Your task to perform on an android device: turn notification dots off Image 0: 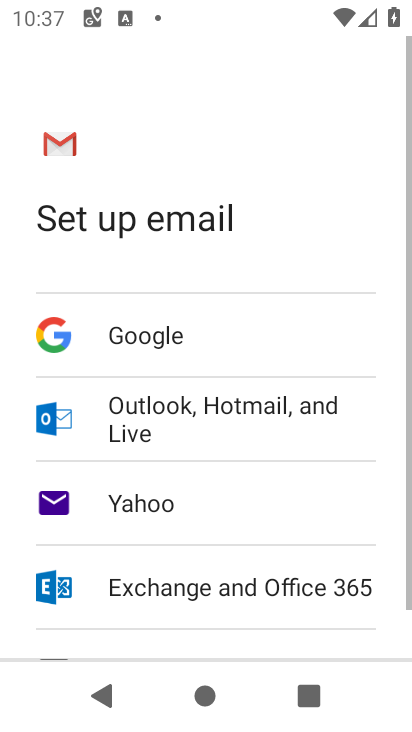
Step 0: press home button
Your task to perform on an android device: turn notification dots off Image 1: 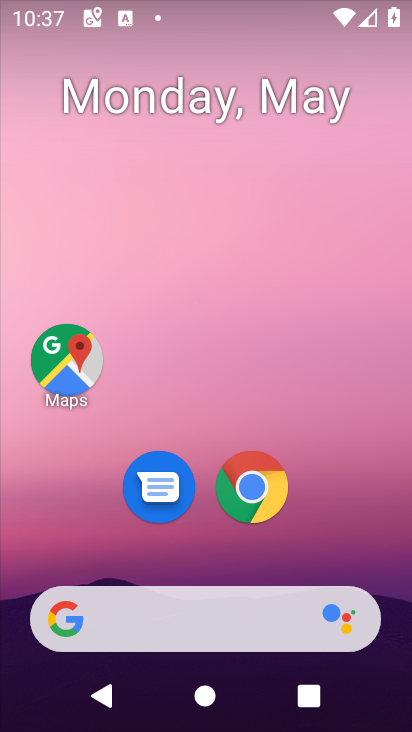
Step 1: drag from (233, 555) to (310, 22)
Your task to perform on an android device: turn notification dots off Image 2: 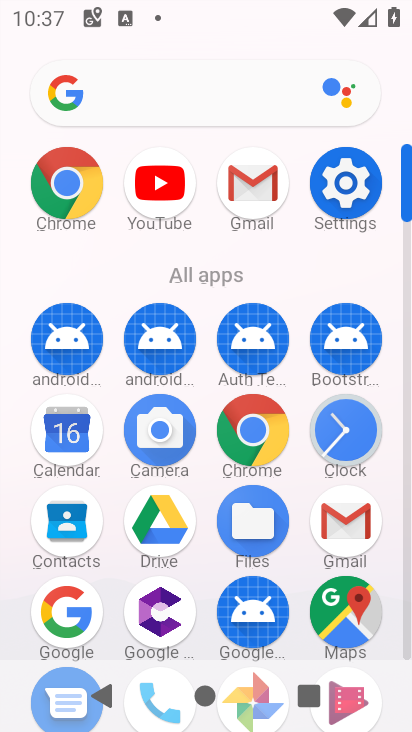
Step 2: click (332, 175)
Your task to perform on an android device: turn notification dots off Image 3: 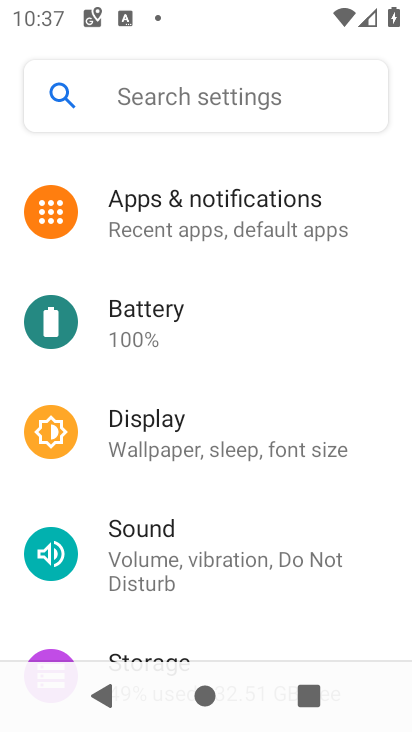
Step 3: click (269, 220)
Your task to perform on an android device: turn notification dots off Image 4: 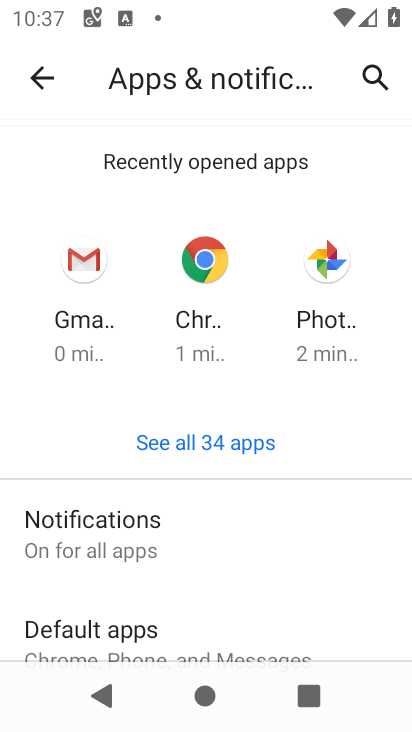
Step 4: click (127, 559)
Your task to perform on an android device: turn notification dots off Image 5: 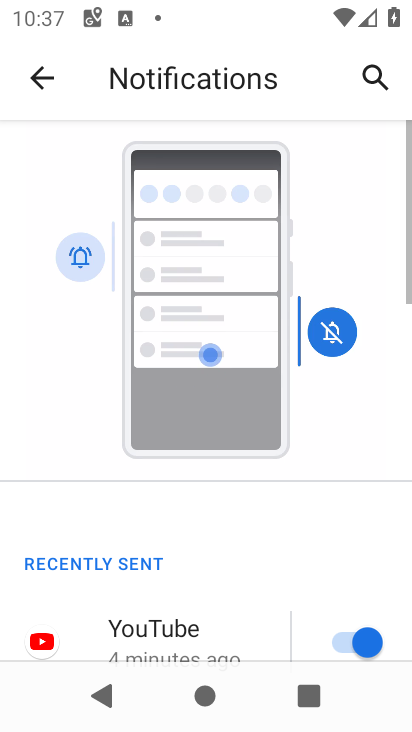
Step 5: drag from (204, 540) to (287, 77)
Your task to perform on an android device: turn notification dots off Image 6: 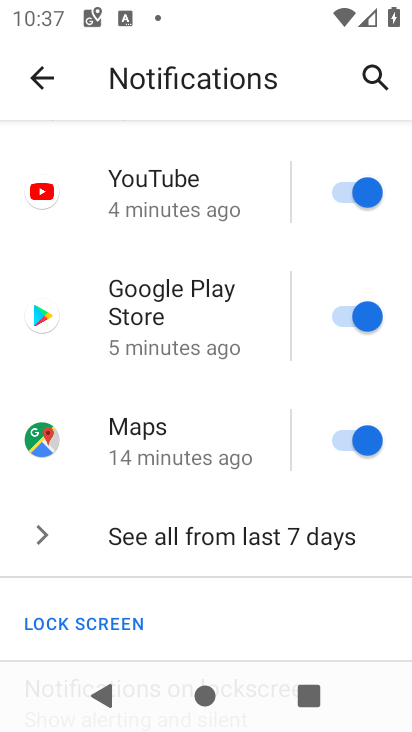
Step 6: drag from (196, 491) to (224, 122)
Your task to perform on an android device: turn notification dots off Image 7: 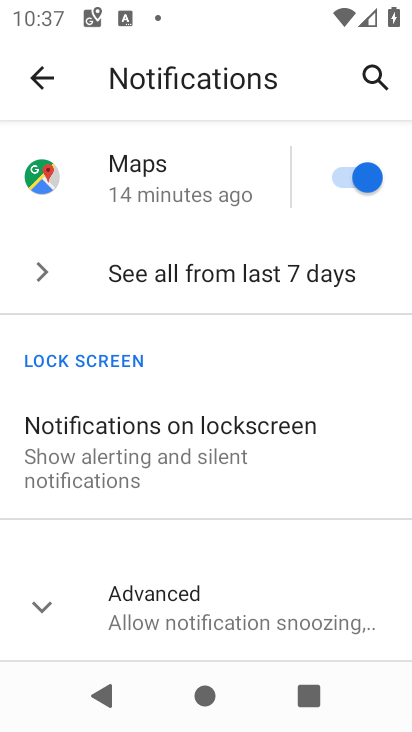
Step 7: click (189, 605)
Your task to perform on an android device: turn notification dots off Image 8: 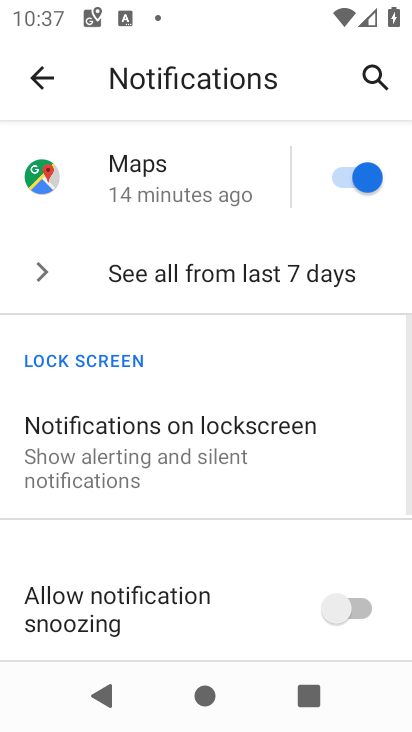
Step 8: drag from (196, 568) to (263, 179)
Your task to perform on an android device: turn notification dots off Image 9: 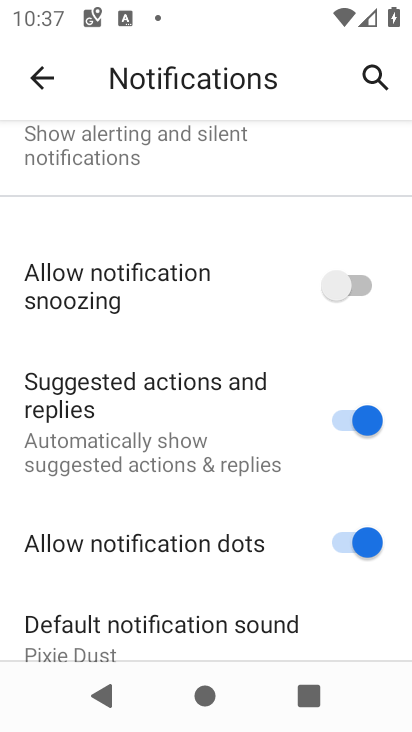
Step 9: drag from (290, 480) to (287, 244)
Your task to perform on an android device: turn notification dots off Image 10: 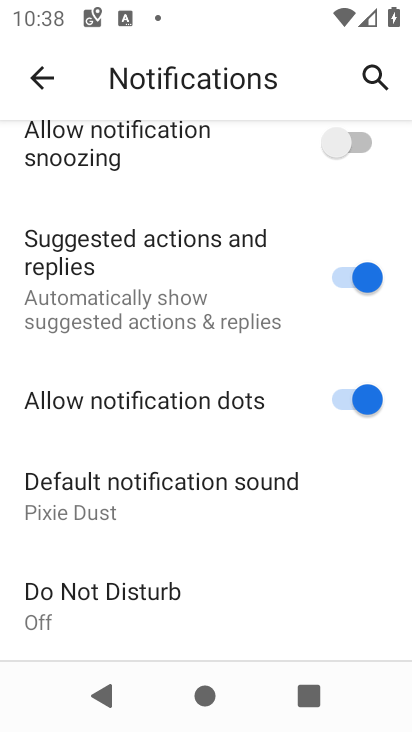
Step 10: click (367, 399)
Your task to perform on an android device: turn notification dots off Image 11: 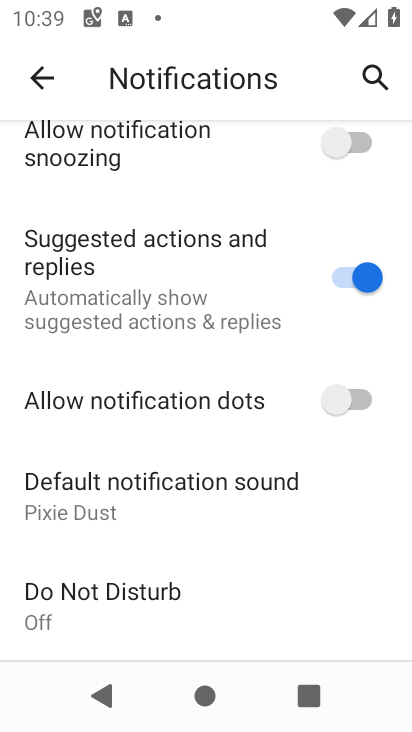
Step 11: task complete